Your task to perform on an android device: Open the map Image 0: 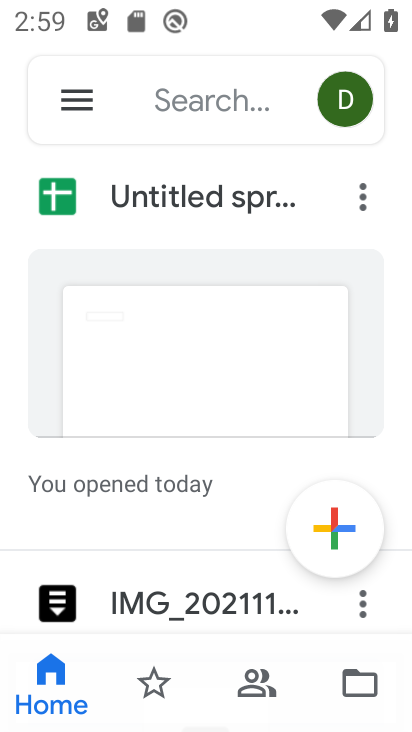
Step 0: press home button
Your task to perform on an android device: Open the map Image 1: 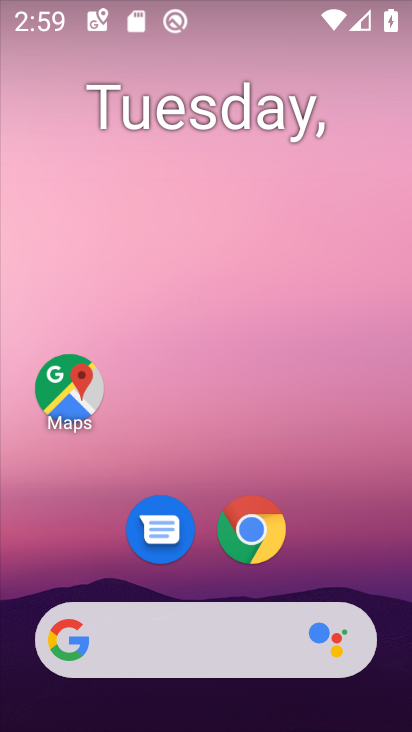
Step 1: click (81, 373)
Your task to perform on an android device: Open the map Image 2: 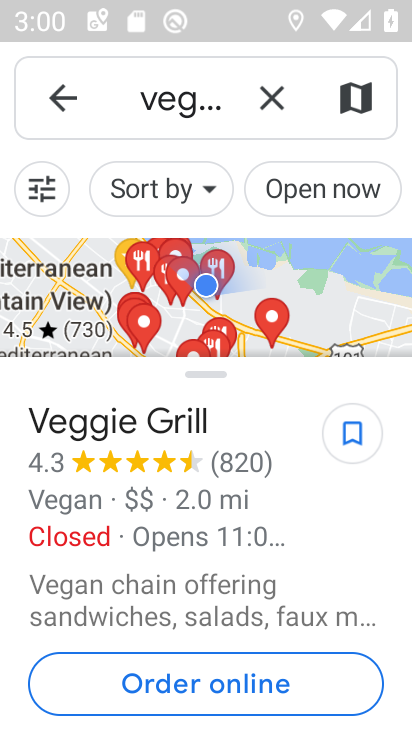
Step 2: task complete